Your task to perform on an android device: Go to calendar. Show me events next week Image 0: 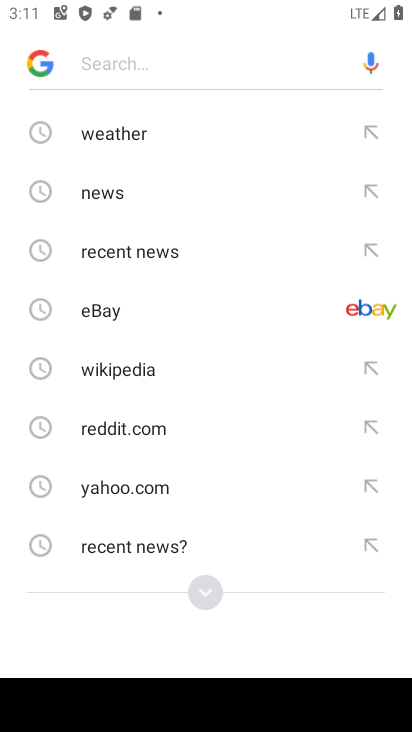
Step 0: press home button
Your task to perform on an android device: Go to calendar. Show me events next week Image 1: 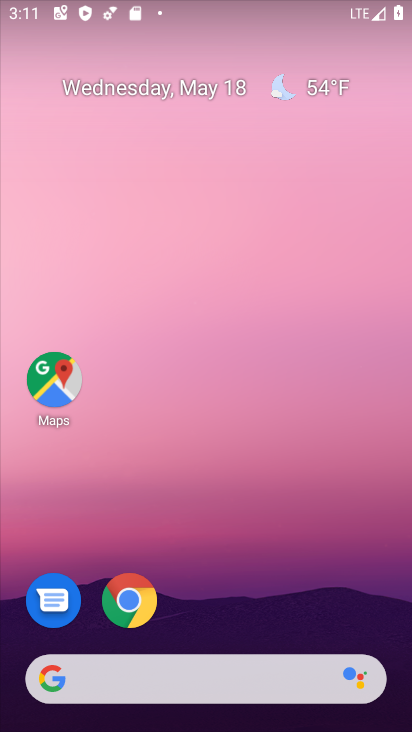
Step 1: drag from (135, 684) to (215, 129)
Your task to perform on an android device: Go to calendar. Show me events next week Image 2: 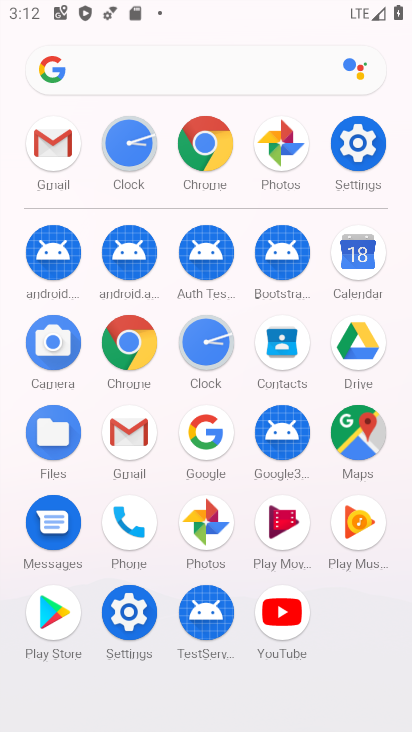
Step 2: click (355, 252)
Your task to perform on an android device: Go to calendar. Show me events next week Image 3: 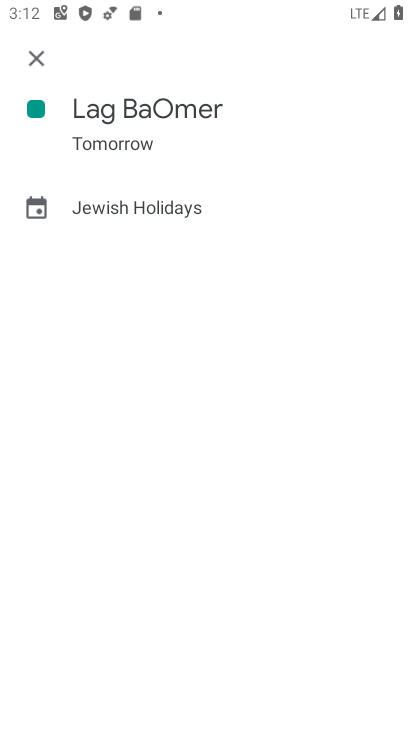
Step 3: click (38, 62)
Your task to perform on an android device: Go to calendar. Show me events next week Image 4: 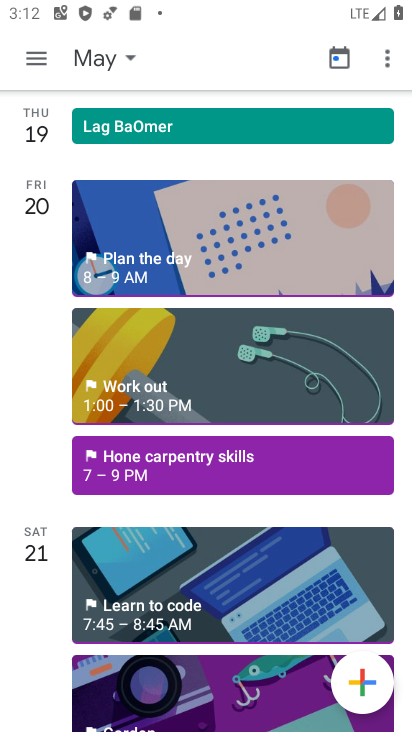
Step 4: click (79, 64)
Your task to perform on an android device: Go to calendar. Show me events next week Image 5: 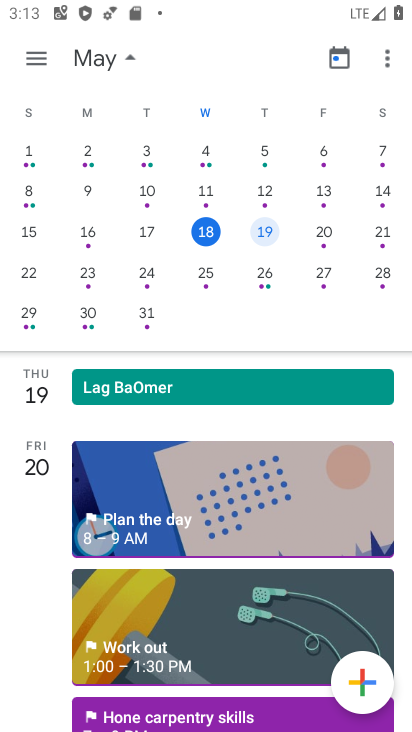
Step 5: click (30, 279)
Your task to perform on an android device: Go to calendar. Show me events next week Image 6: 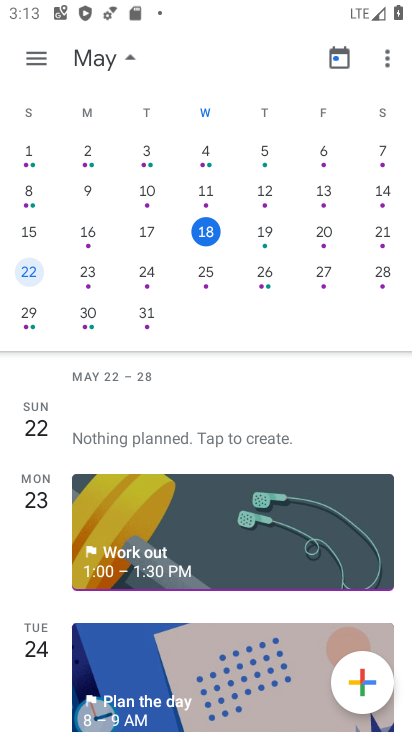
Step 6: click (44, 62)
Your task to perform on an android device: Go to calendar. Show me events next week Image 7: 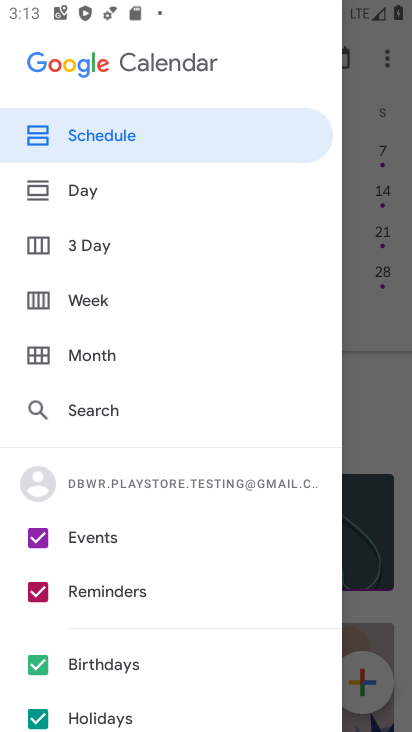
Step 7: click (102, 299)
Your task to perform on an android device: Go to calendar. Show me events next week Image 8: 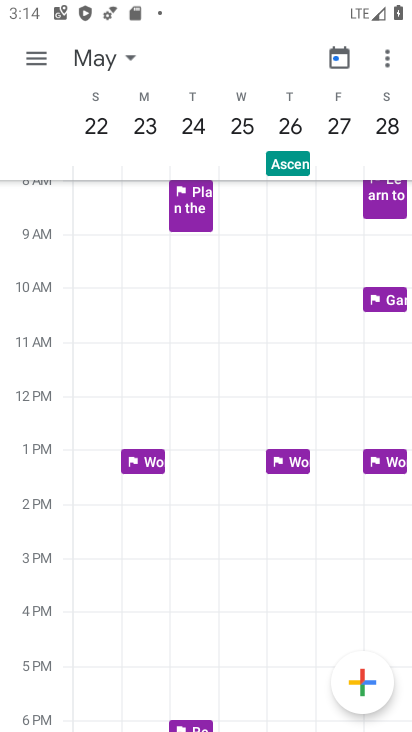
Step 8: click (39, 62)
Your task to perform on an android device: Go to calendar. Show me events next week Image 9: 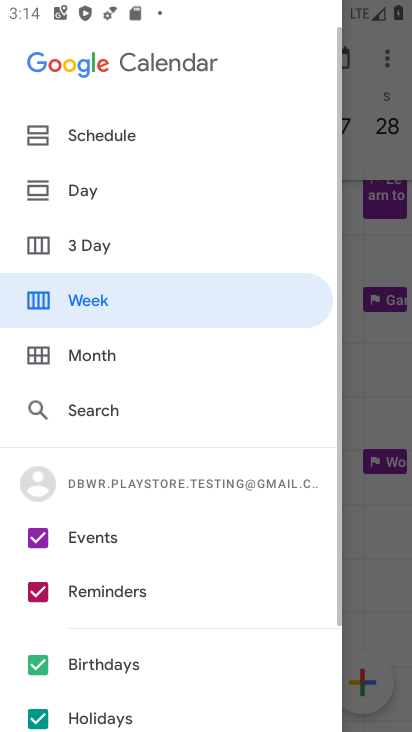
Step 9: click (113, 140)
Your task to perform on an android device: Go to calendar. Show me events next week Image 10: 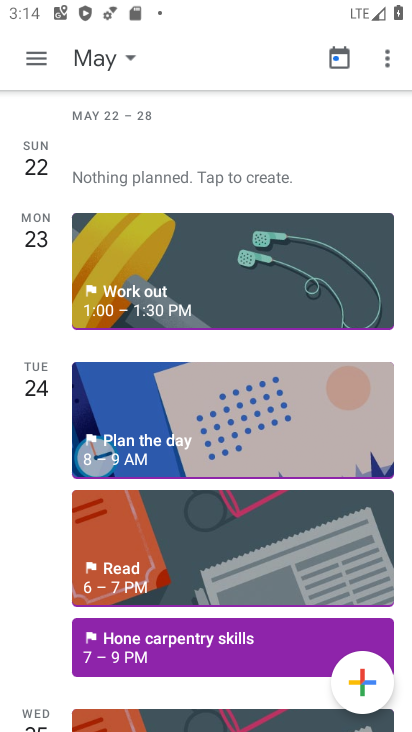
Step 10: click (153, 651)
Your task to perform on an android device: Go to calendar. Show me events next week Image 11: 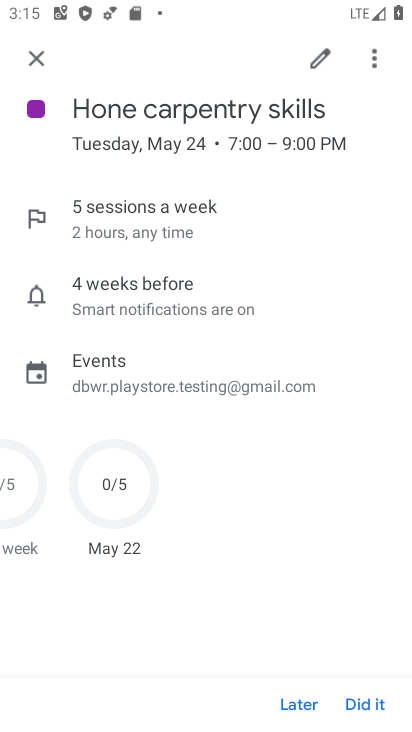
Step 11: task complete